Your task to perform on an android device: Go to Amazon Image 0: 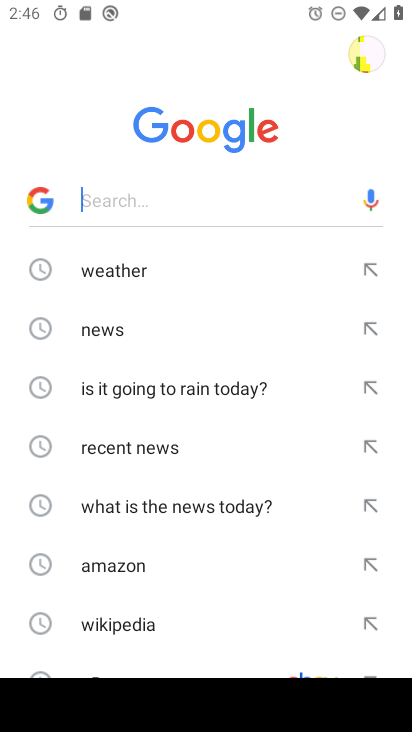
Step 0: click (151, 570)
Your task to perform on an android device: Go to Amazon Image 1: 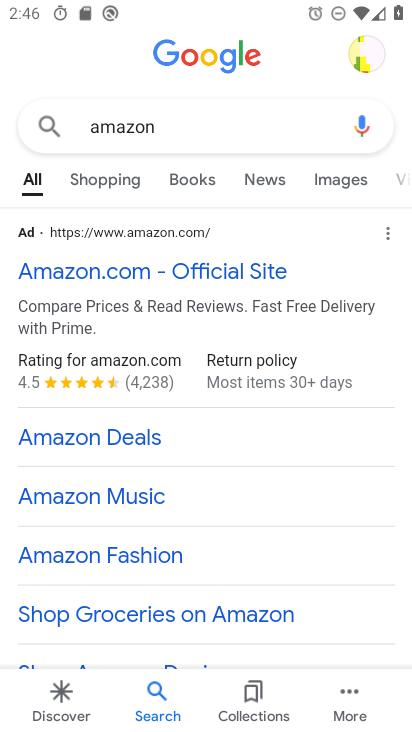
Step 1: drag from (235, 591) to (254, 134)
Your task to perform on an android device: Go to Amazon Image 2: 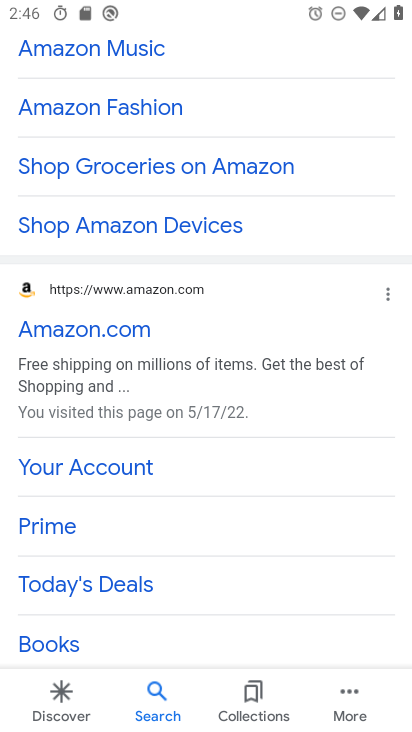
Step 2: click (103, 328)
Your task to perform on an android device: Go to Amazon Image 3: 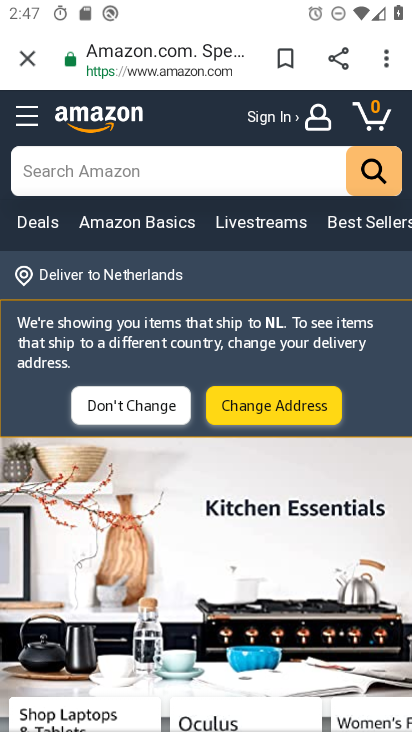
Step 3: task complete